Your task to perform on an android device: Open the stopwatch Image 0: 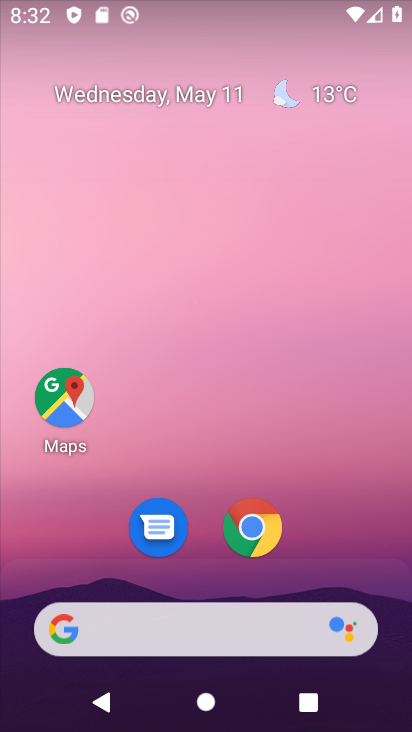
Step 0: drag from (226, 460) to (228, 161)
Your task to perform on an android device: Open the stopwatch Image 1: 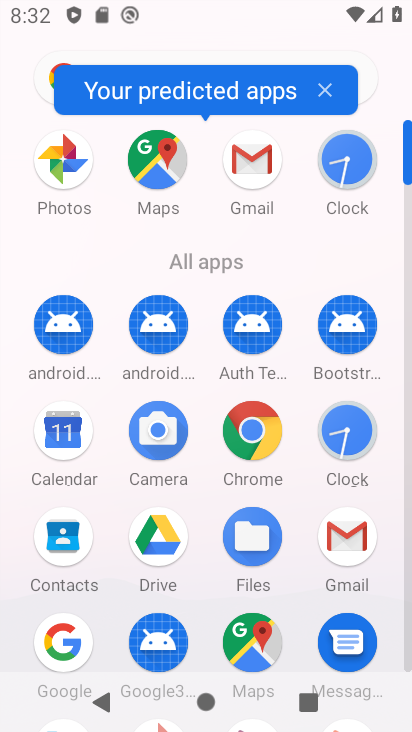
Step 1: click (353, 164)
Your task to perform on an android device: Open the stopwatch Image 2: 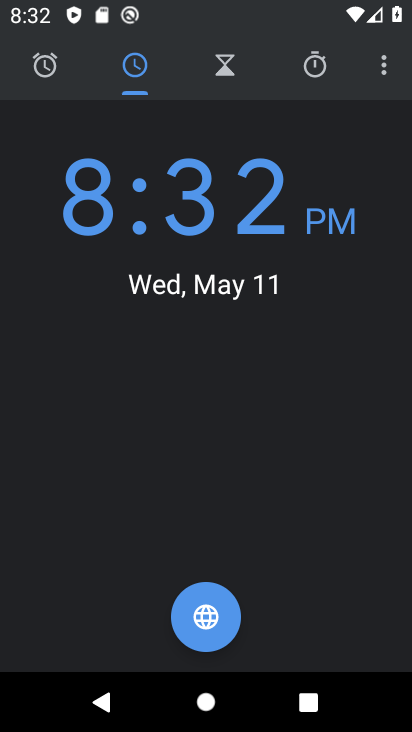
Step 2: click (308, 77)
Your task to perform on an android device: Open the stopwatch Image 3: 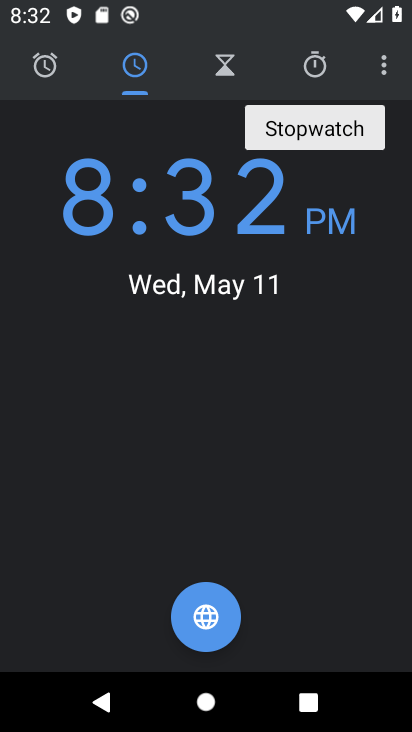
Step 3: click (307, 72)
Your task to perform on an android device: Open the stopwatch Image 4: 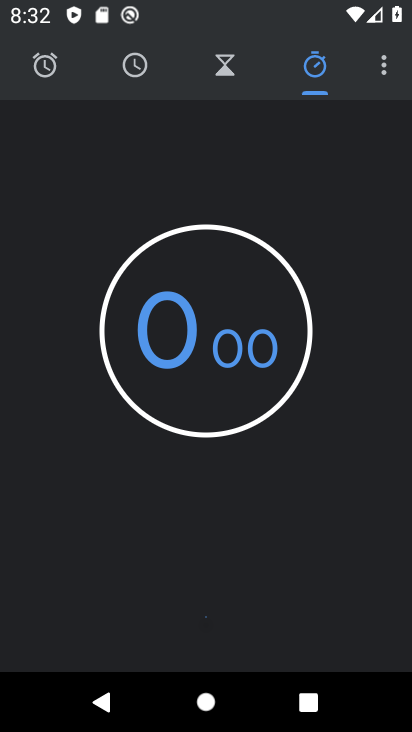
Step 4: click (313, 65)
Your task to perform on an android device: Open the stopwatch Image 5: 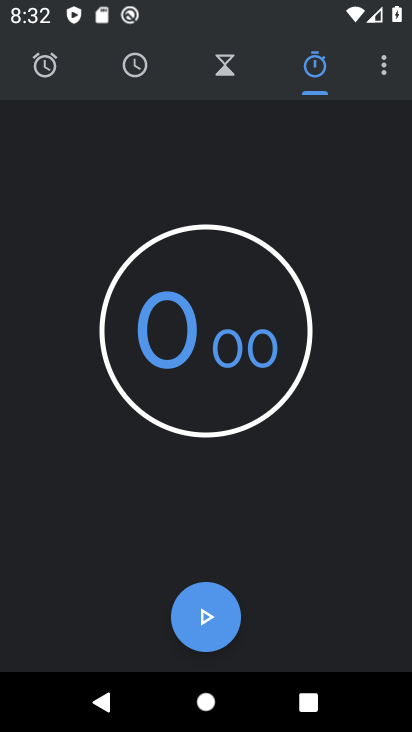
Step 5: click (205, 608)
Your task to perform on an android device: Open the stopwatch Image 6: 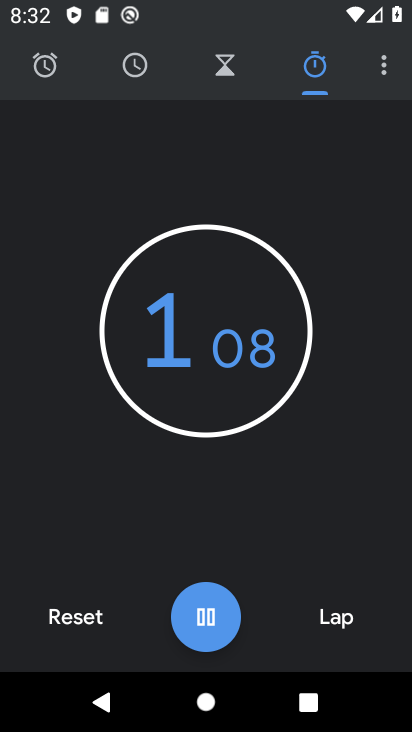
Step 6: task complete